Your task to perform on an android device: Open Reddit.com Image 0: 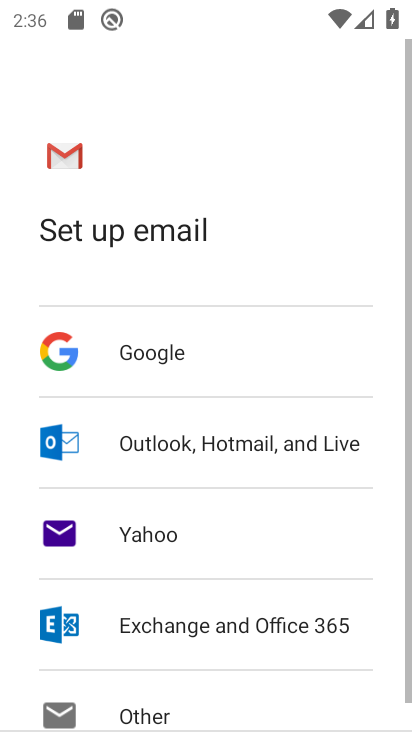
Step 0: press home button
Your task to perform on an android device: Open Reddit.com Image 1: 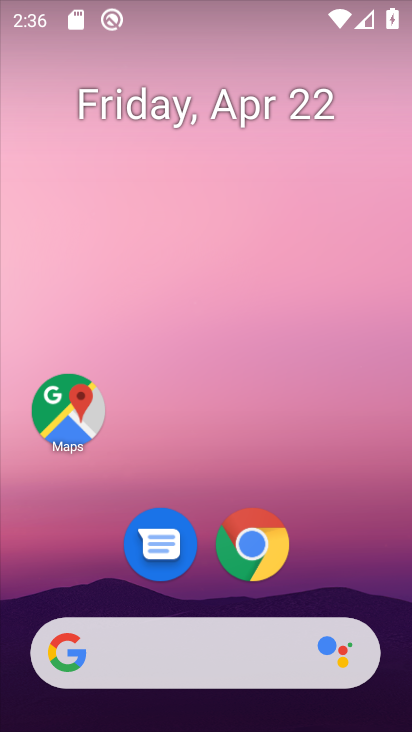
Step 1: click (262, 565)
Your task to perform on an android device: Open Reddit.com Image 2: 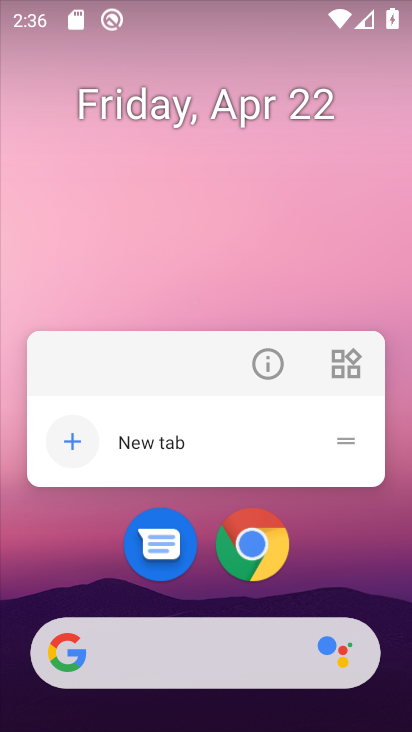
Step 2: click (260, 562)
Your task to perform on an android device: Open Reddit.com Image 3: 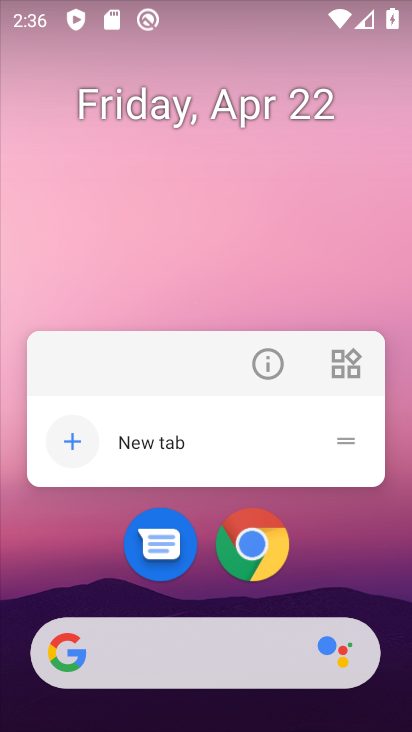
Step 3: click (260, 562)
Your task to perform on an android device: Open Reddit.com Image 4: 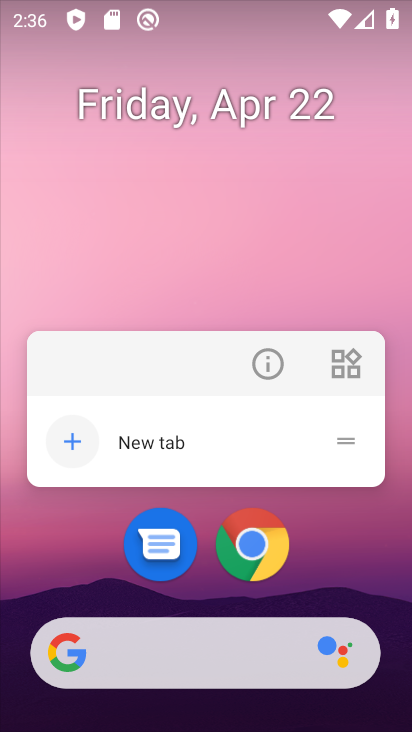
Step 4: click (260, 562)
Your task to perform on an android device: Open Reddit.com Image 5: 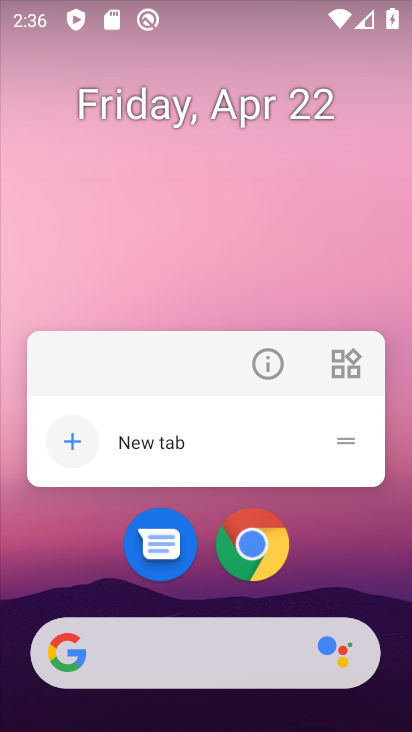
Step 5: click (254, 559)
Your task to perform on an android device: Open Reddit.com Image 6: 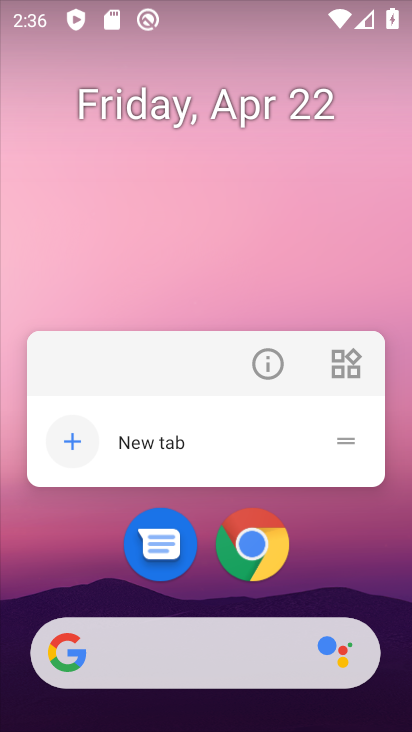
Step 6: click (265, 551)
Your task to perform on an android device: Open Reddit.com Image 7: 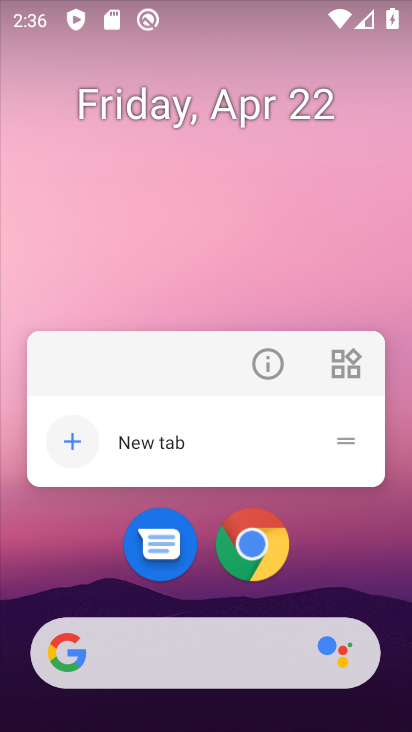
Step 7: click (262, 553)
Your task to perform on an android device: Open Reddit.com Image 8: 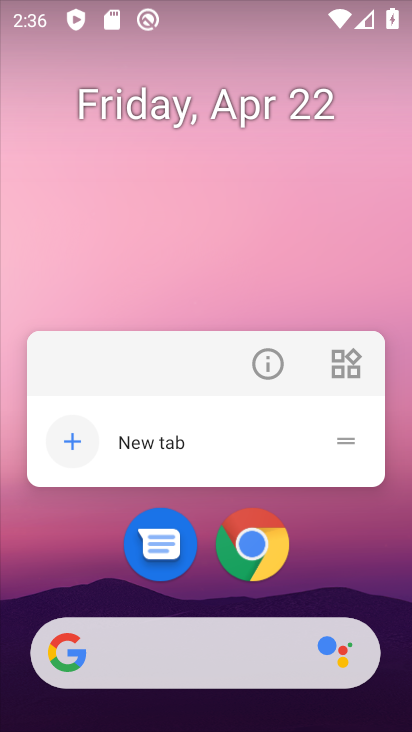
Step 8: click (262, 553)
Your task to perform on an android device: Open Reddit.com Image 9: 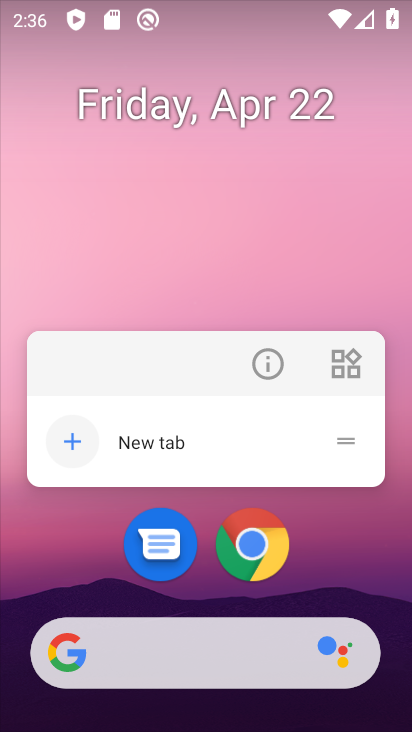
Step 9: click (262, 553)
Your task to perform on an android device: Open Reddit.com Image 10: 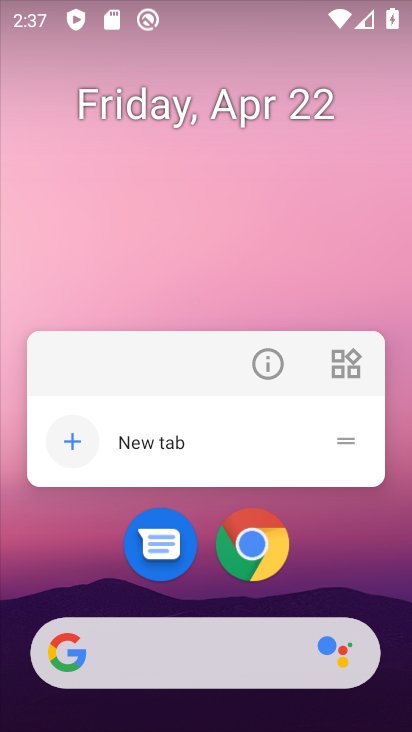
Step 10: click (235, 552)
Your task to perform on an android device: Open Reddit.com Image 11: 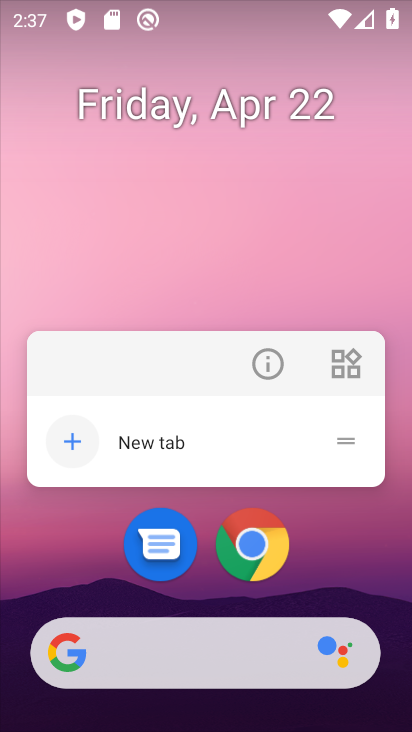
Step 11: click (246, 553)
Your task to perform on an android device: Open Reddit.com Image 12: 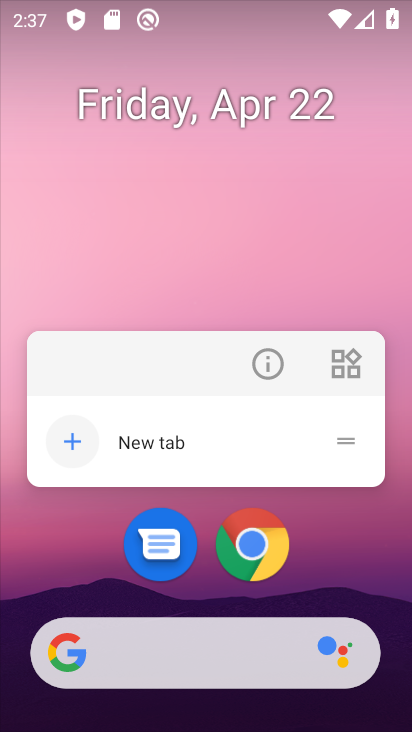
Step 12: click (350, 531)
Your task to perform on an android device: Open Reddit.com Image 13: 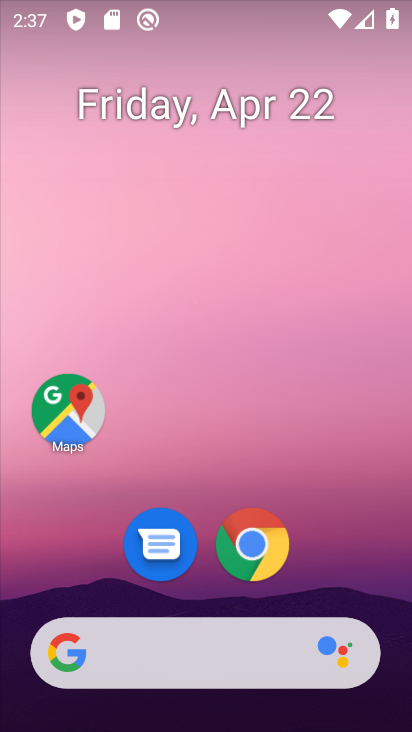
Step 13: click (263, 557)
Your task to perform on an android device: Open Reddit.com Image 14: 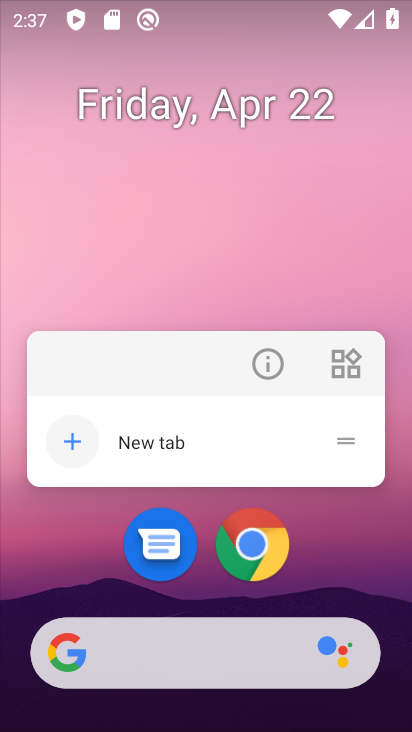
Step 14: click (244, 552)
Your task to perform on an android device: Open Reddit.com Image 15: 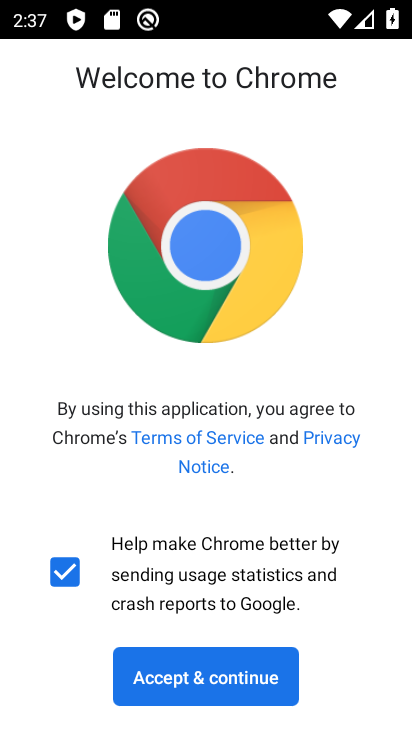
Step 15: click (200, 697)
Your task to perform on an android device: Open Reddit.com Image 16: 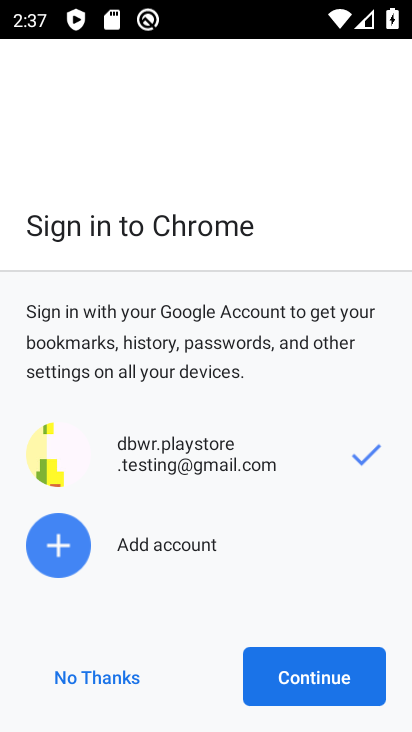
Step 16: click (318, 686)
Your task to perform on an android device: Open Reddit.com Image 17: 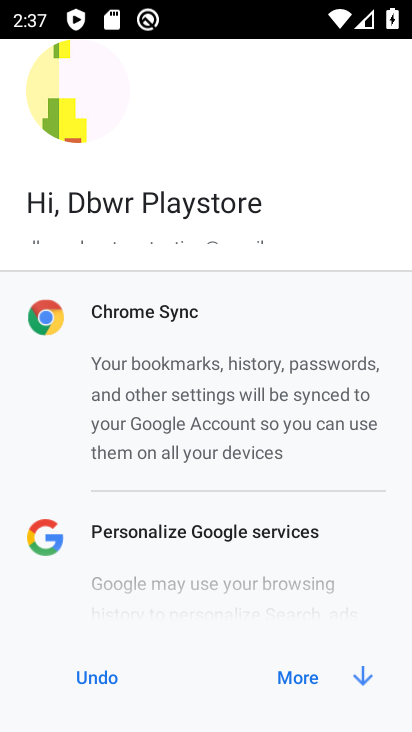
Step 17: click (318, 687)
Your task to perform on an android device: Open Reddit.com Image 18: 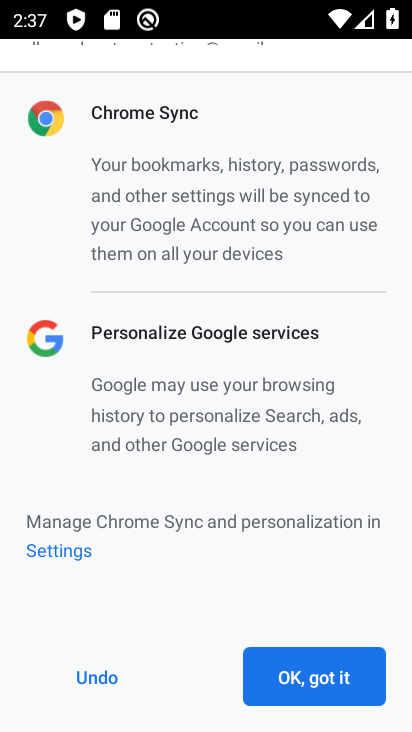
Step 18: click (322, 687)
Your task to perform on an android device: Open Reddit.com Image 19: 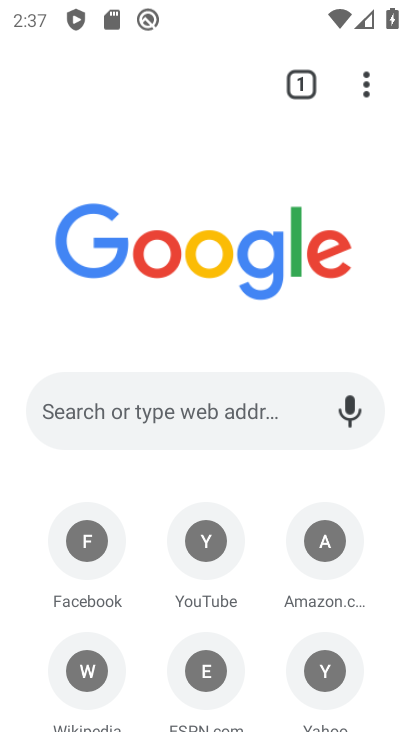
Step 19: click (195, 416)
Your task to perform on an android device: Open Reddit.com Image 20: 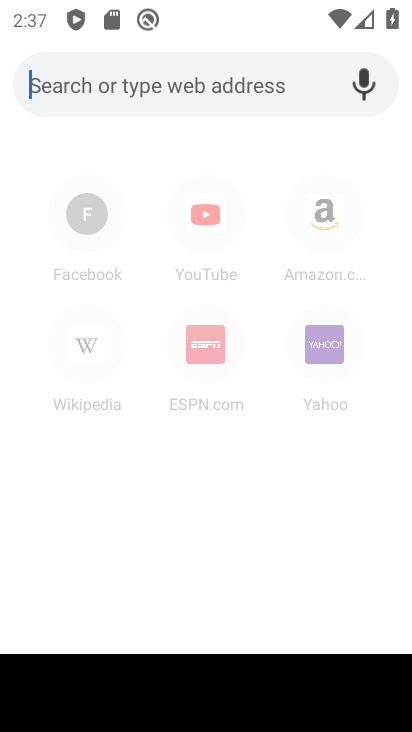
Step 20: type "Reddit.comm,"
Your task to perform on an android device: Open Reddit.com Image 21: 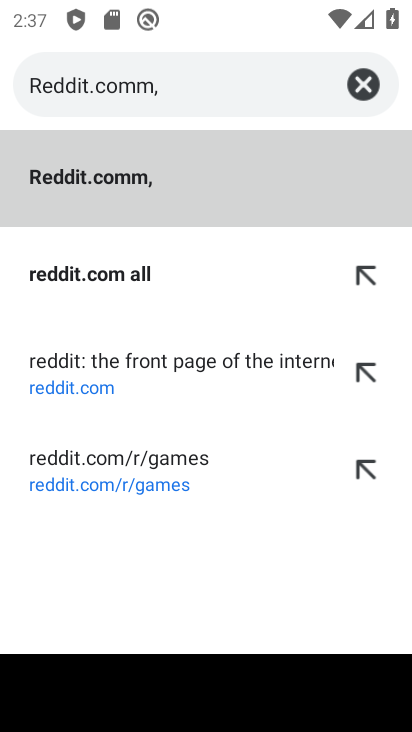
Step 21: click (360, 82)
Your task to perform on an android device: Open Reddit.com Image 22: 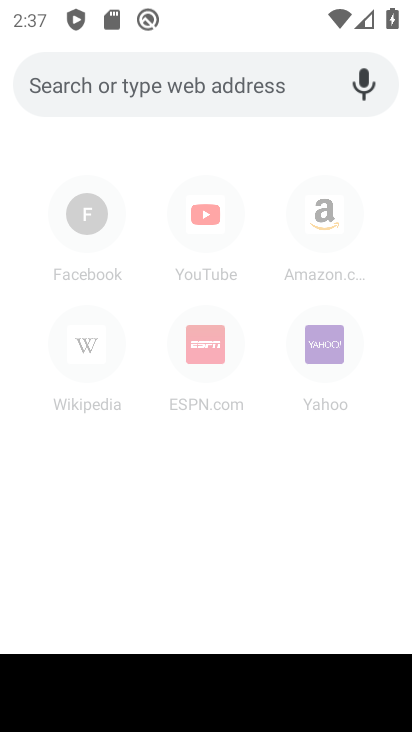
Step 22: click (68, 389)
Your task to perform on an android device: Open Reddit.com Image 23: 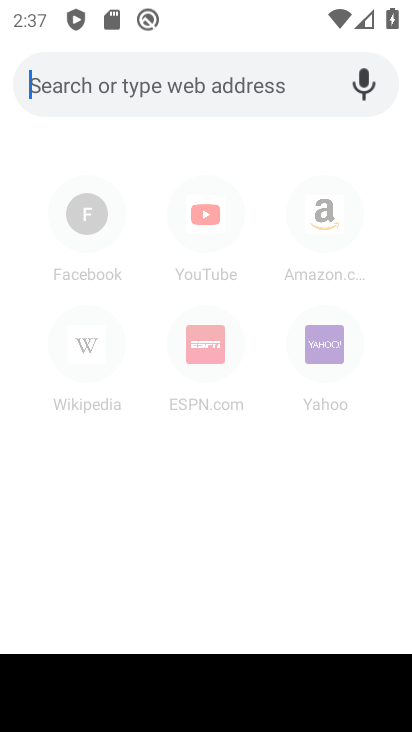
Step 23: drag from (68, 389) to (93, 432)
Your task to perform on an android device: Open Reddit.com Image 24: 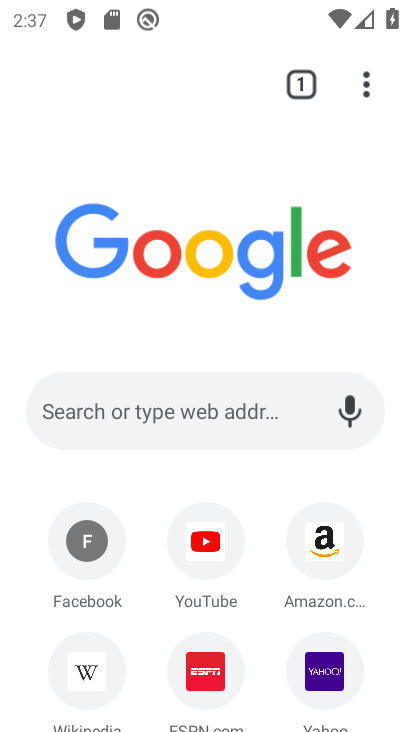
Step 24: click (99, 413)
Your task to perform on an android device: Open Reddit.com Image 25: 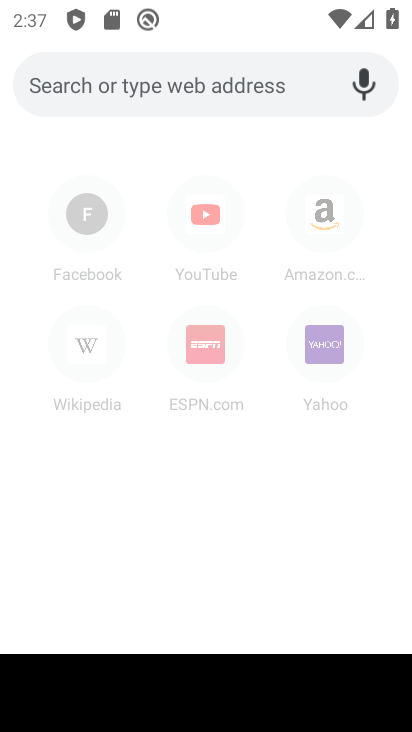
Step 25: type "reddit.com"
Your task to perform on an android device: Open Reddit.com Image 26: 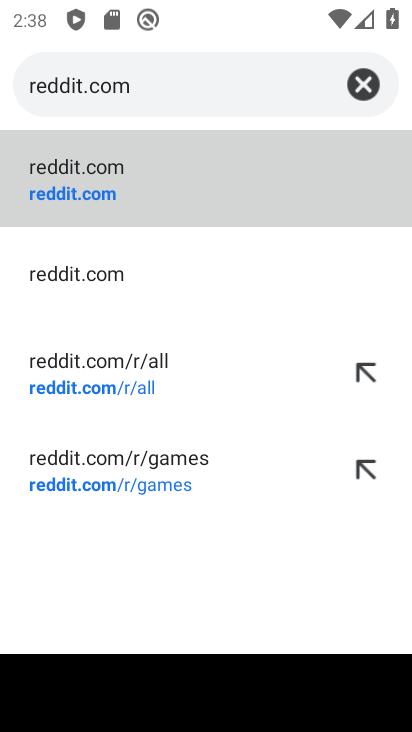
Step 26: click (95, 193)
Your task to perform on an android device: Open Reddit.com Image 27: 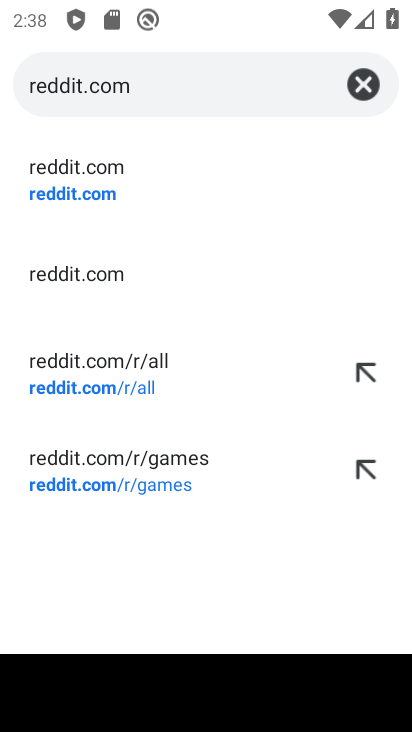
Step 27: click (49, 197)
Your task to perform on an android device: Open Reddit.com Image 28: 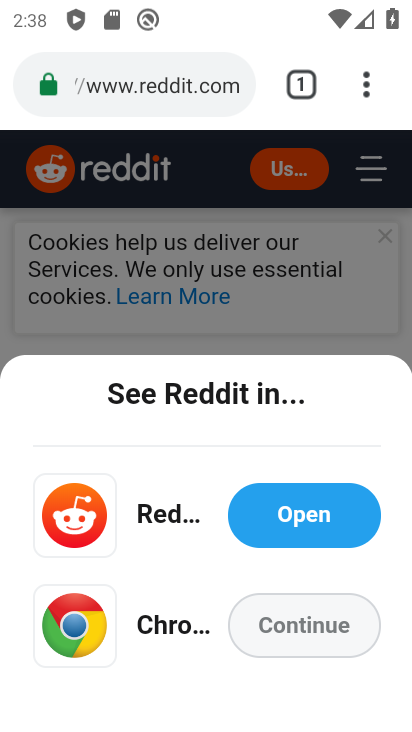
Step 28: task complete